Your task to perform on an android device: turn on javascript in the chrome app Image 0: 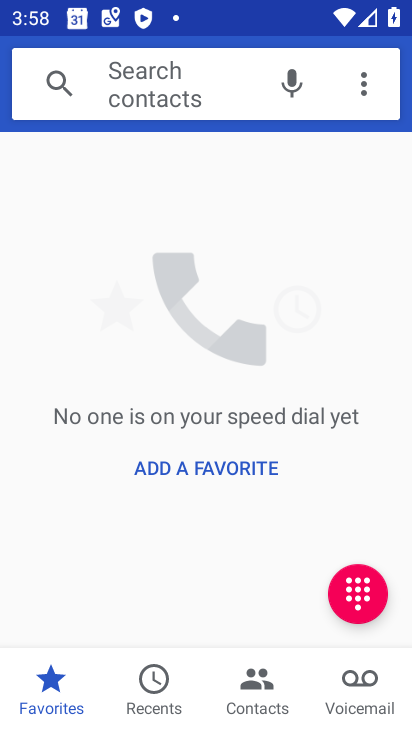
Step 0: press back button
Your task to perform on an android device: turn on javascript in the chrome app Image 1: 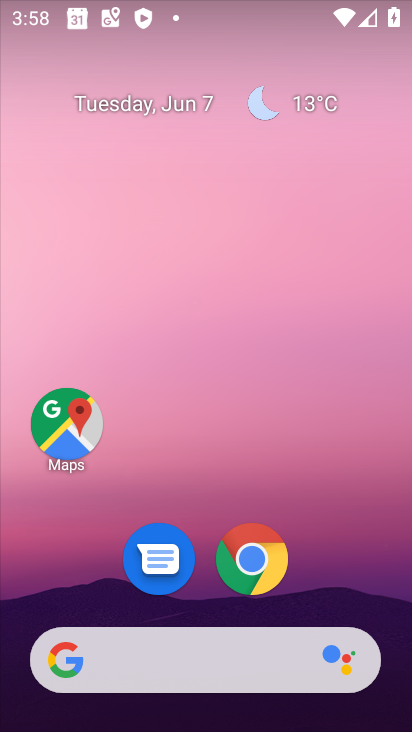
Step 1: click (254, 561)
Your task to perform on an android device: turn on javascript in the chrome app Image 2: 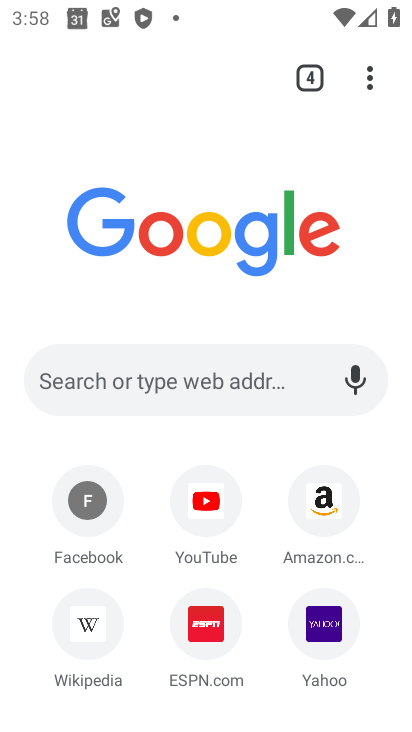
Step 2: click (368, 77)
Your task to perform on an android device: turn on javascript in the chrome app Image 3: 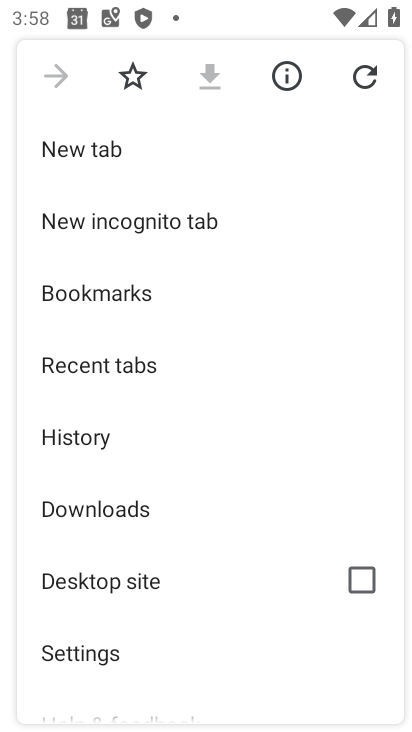
Step 3: click (101, 647)
Your task to perform on an android device: turn on javascript in the chrome app Image 4: 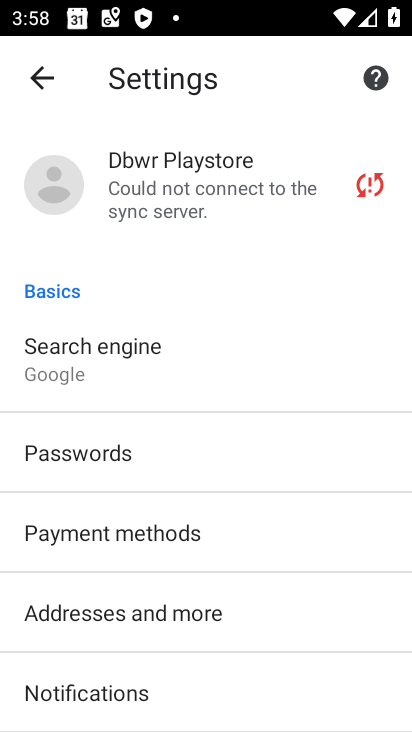
Step 4: drag from (183, 461) to (193, 350)
Your task to perform on an android device: turn on javascript in the chrome app Image 5: 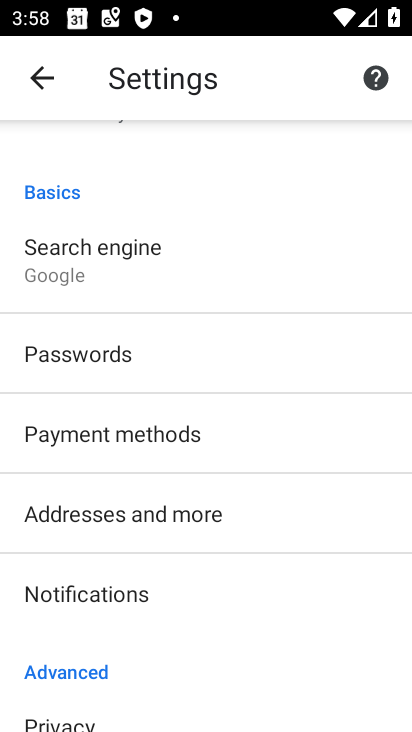
Step 5: drag from (168, 620) to (206, 441)
Your task to perform on an android device: turn on javascript in the chrome app Image 6: 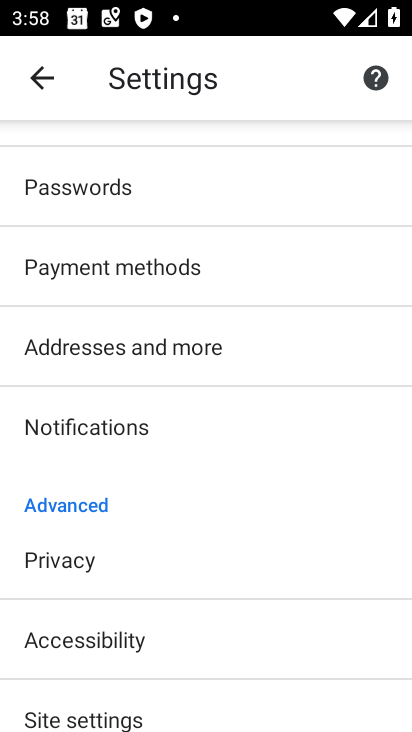
Step 6: drag from (187, 647) to (208, 484)
Your task to perform on an android device: turn on javascript in the chrome app Image 7: 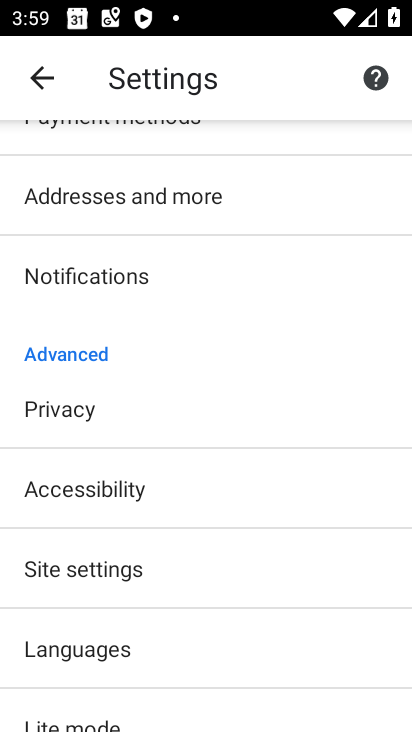
Step 7: click (91, 571)
Your task to perform on an android device: turn on javascript in the chrome app Image 8: 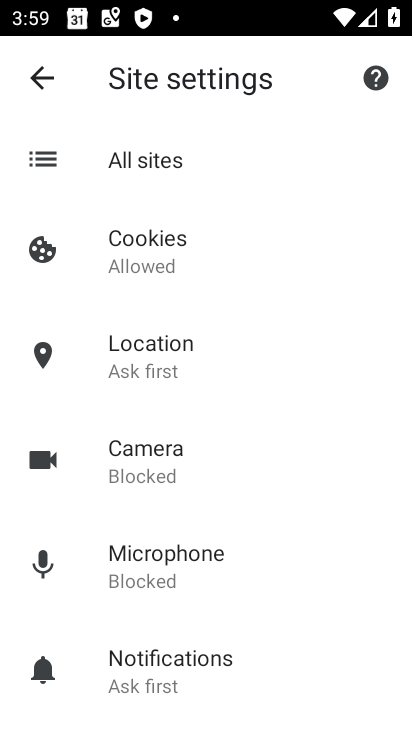
Step 8: drag from (156, 501) to (187, 383)
Your task to perform on an android device: turn on javascript in the chrome app Image 9: 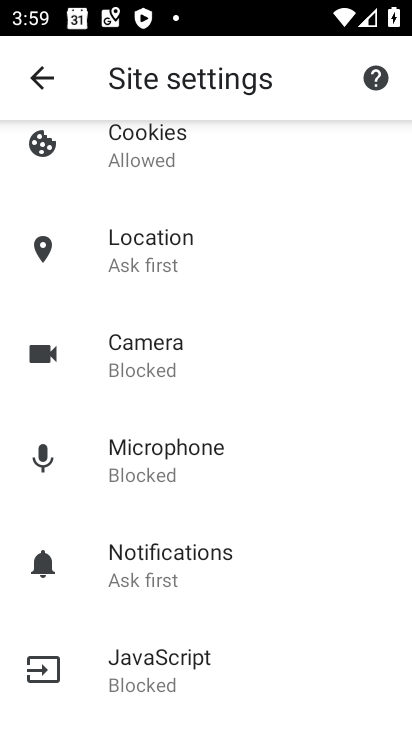
Step 9: drag from (137, 507) to (202, 360)
Your task to perform on an android device: turn on javascript in the chrome app Image 10: 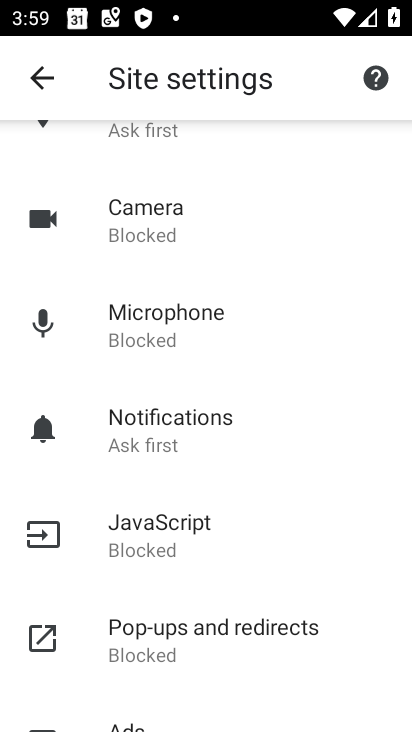
Step 10: click (157, 542)
Your task to perform on an android device: turn on javascript in the chrome app Image 11: 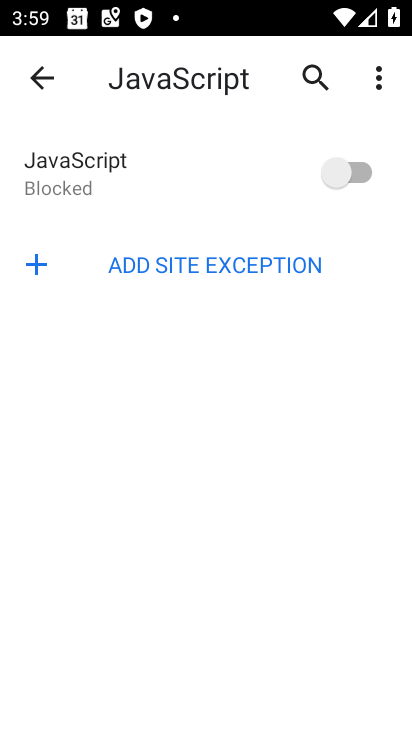
Step 11: click (328, 168)
Your task to perform on an android device: turn on javascript in the chrome app Image 12: 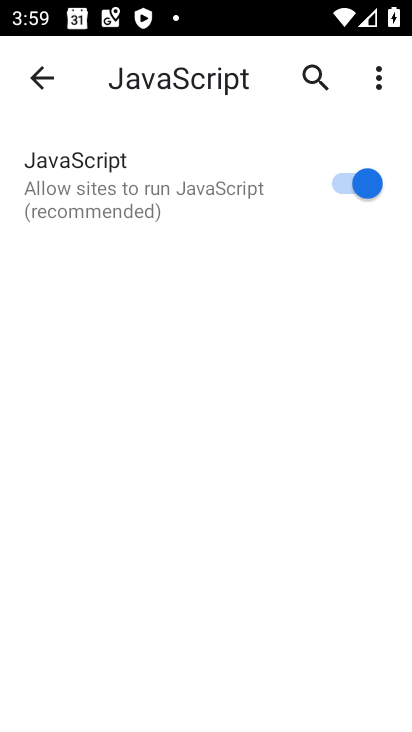
Step 12: task complete